Your task to perform on an android device: Open the phone app and click the voicemail tab. Image 0: 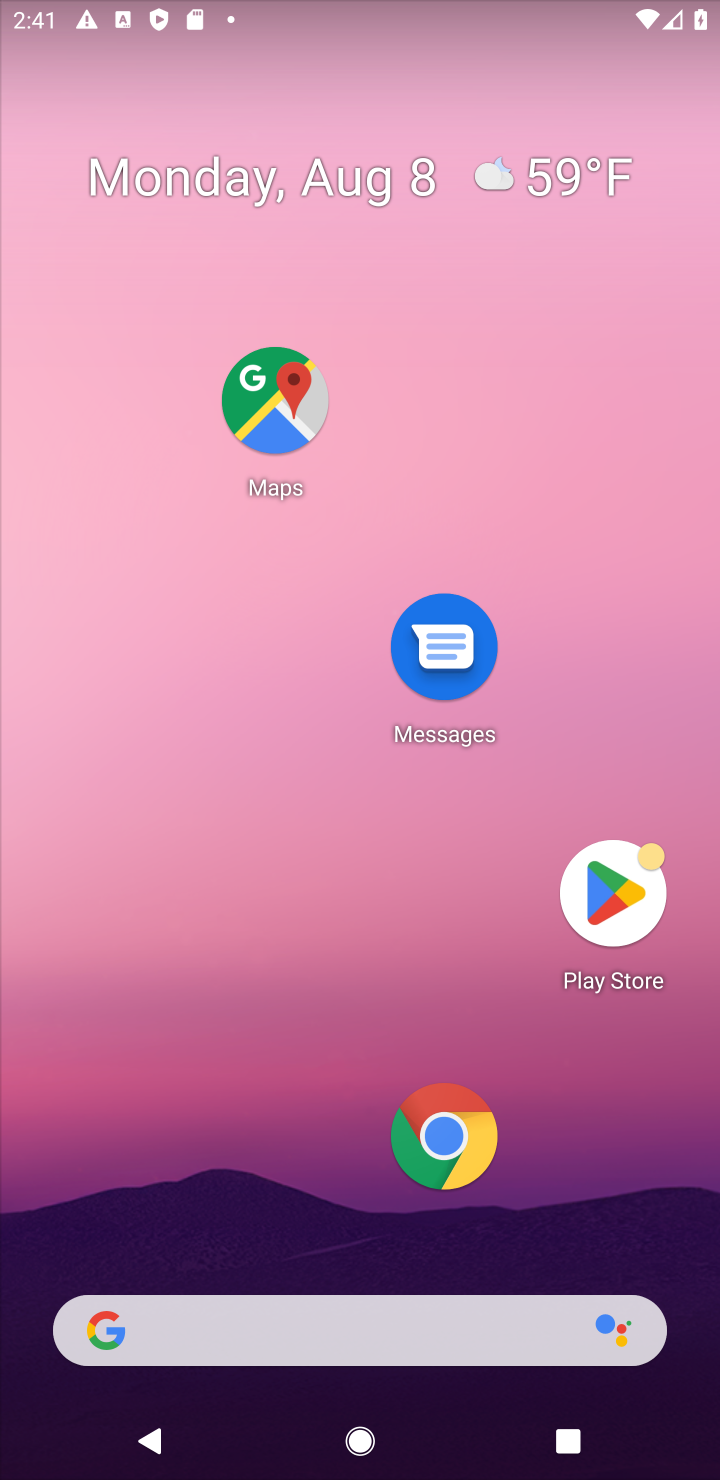
Step 0: drag from (84, 1421) to (247, 480)
Your task to perform on an android device: Open the phone app and click the voicemail tab. Image 1: 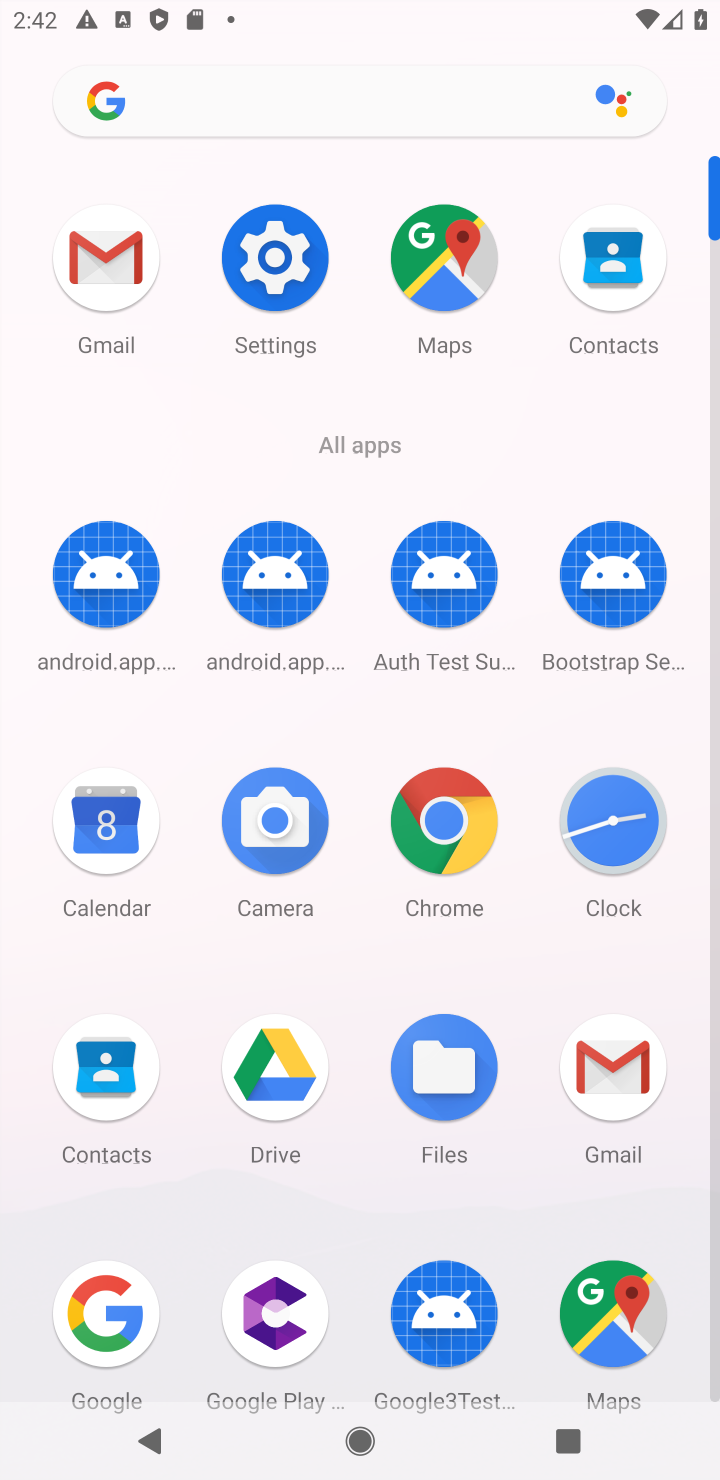
Step 1: drag from (272, 1135) to (275, 623)
Your task to perform on an android device: Open the phone app and click the voicemail tab. Image 2: 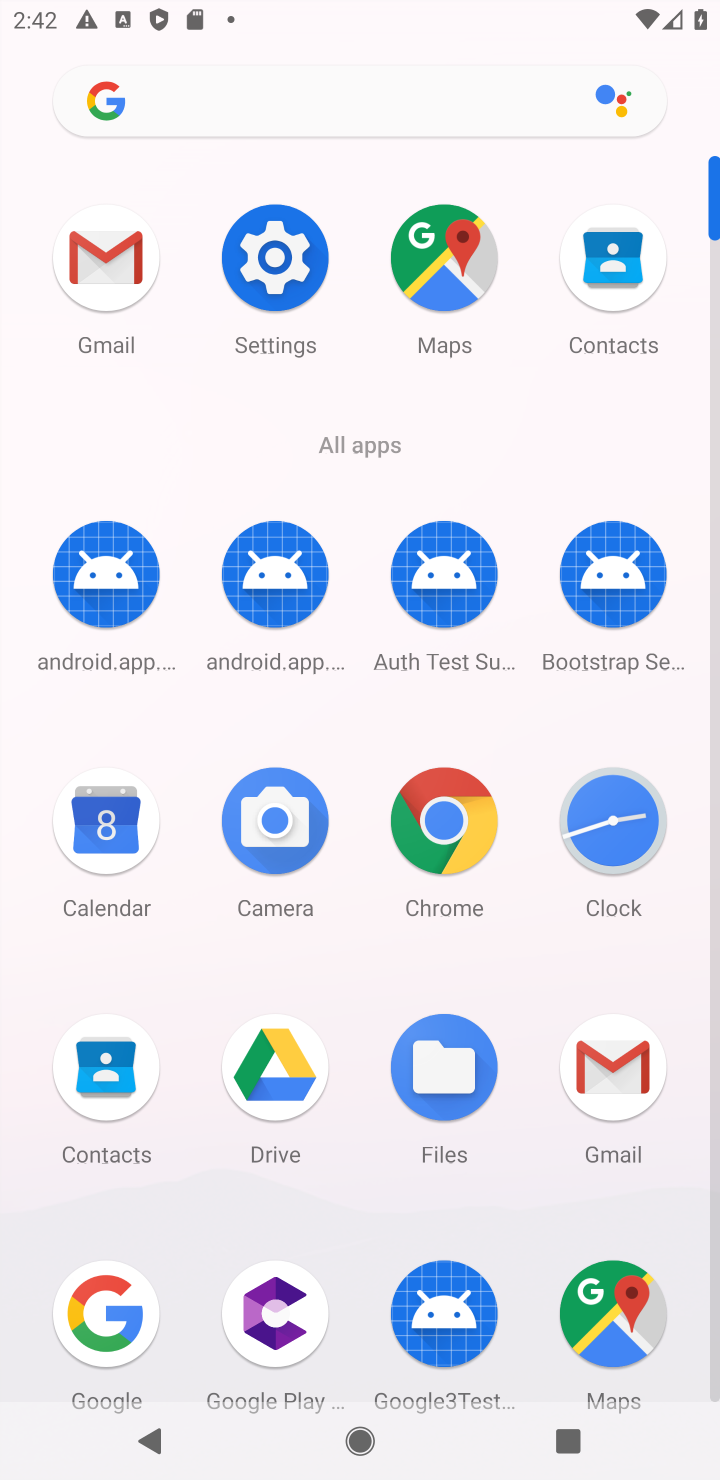
Step 2: drag from (175, 1298) to (272, 658)
Your task to perform on an android device: Open the phone app and click the voicemail tab. Image 3: 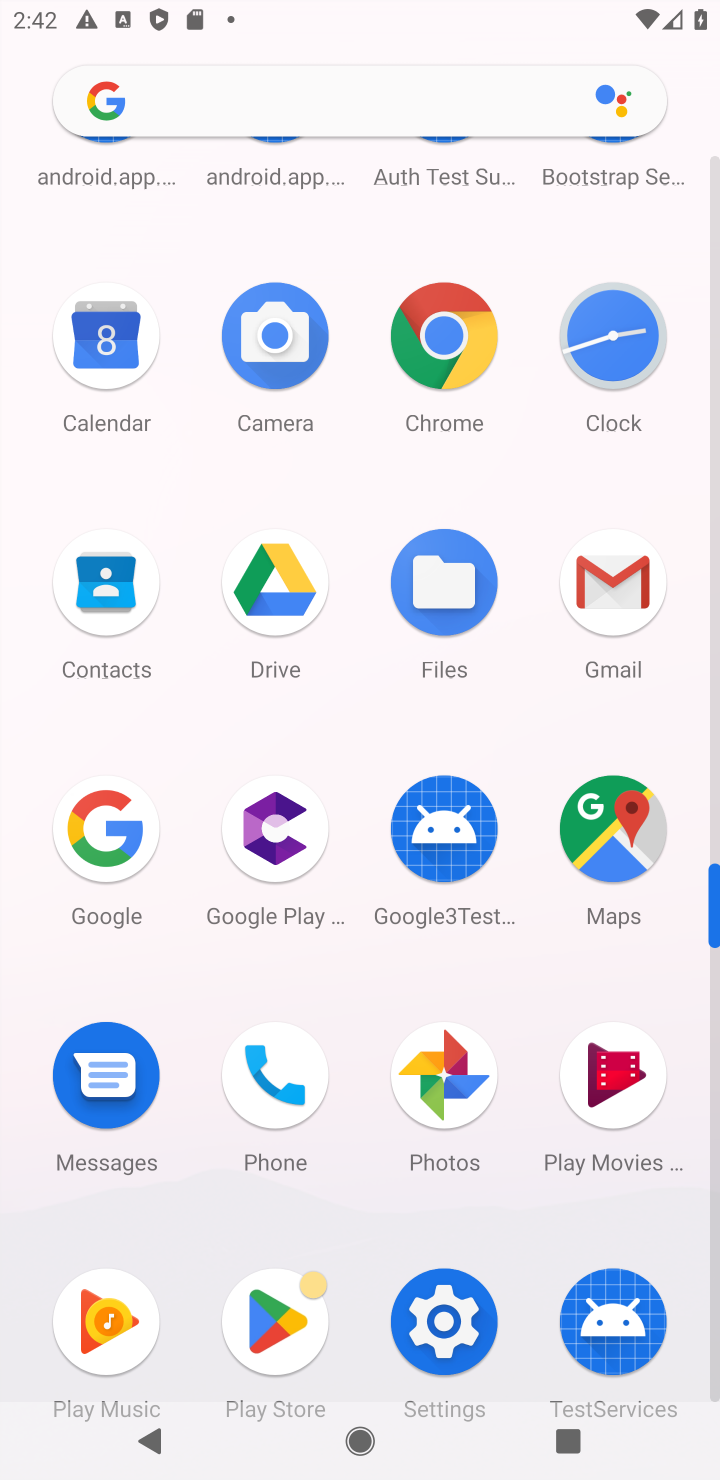
Step 3: click (282, 1087)
Your task to perform on an android device: Open the phone app and click the voicemail tab. Image 4: 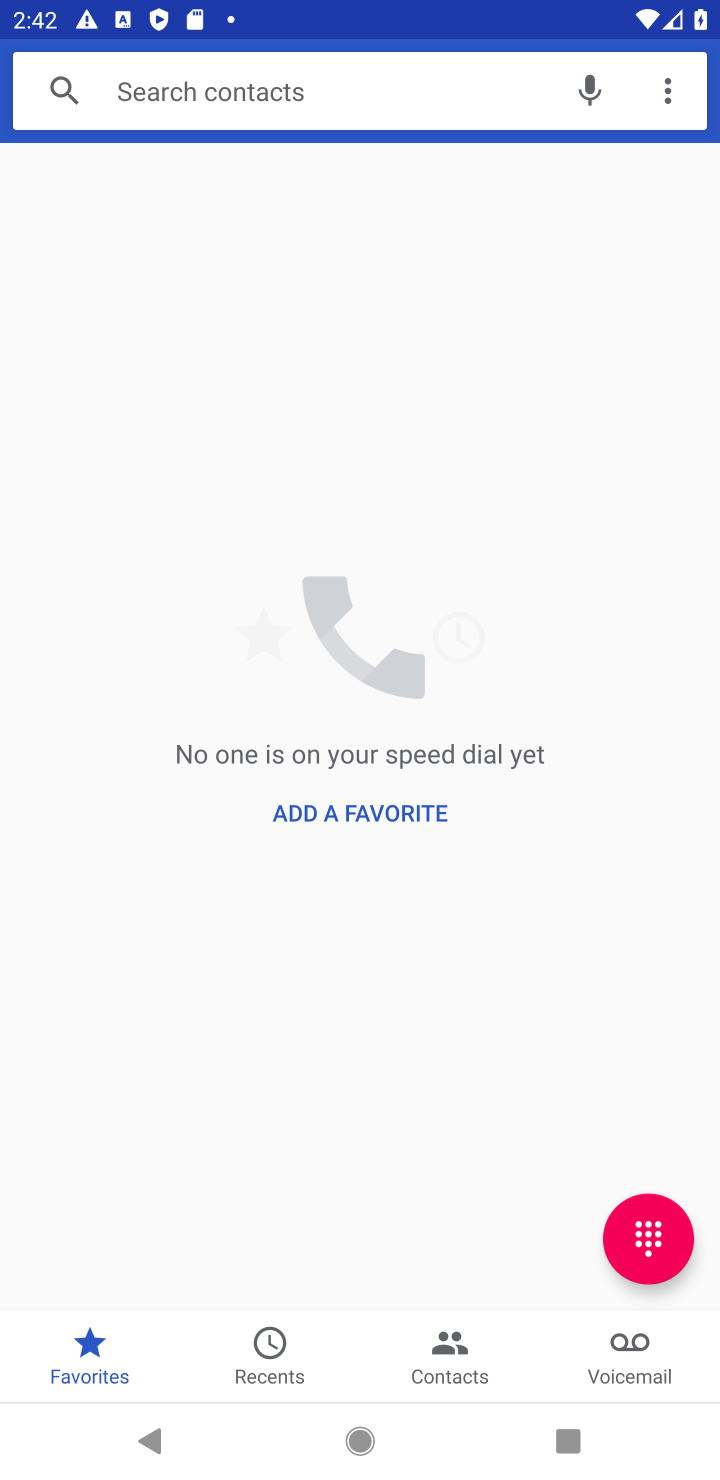
Step 4: click (603, 1345)
Your task to perform on an android device: Open the phone app and click the voicemail tab. Image 5: 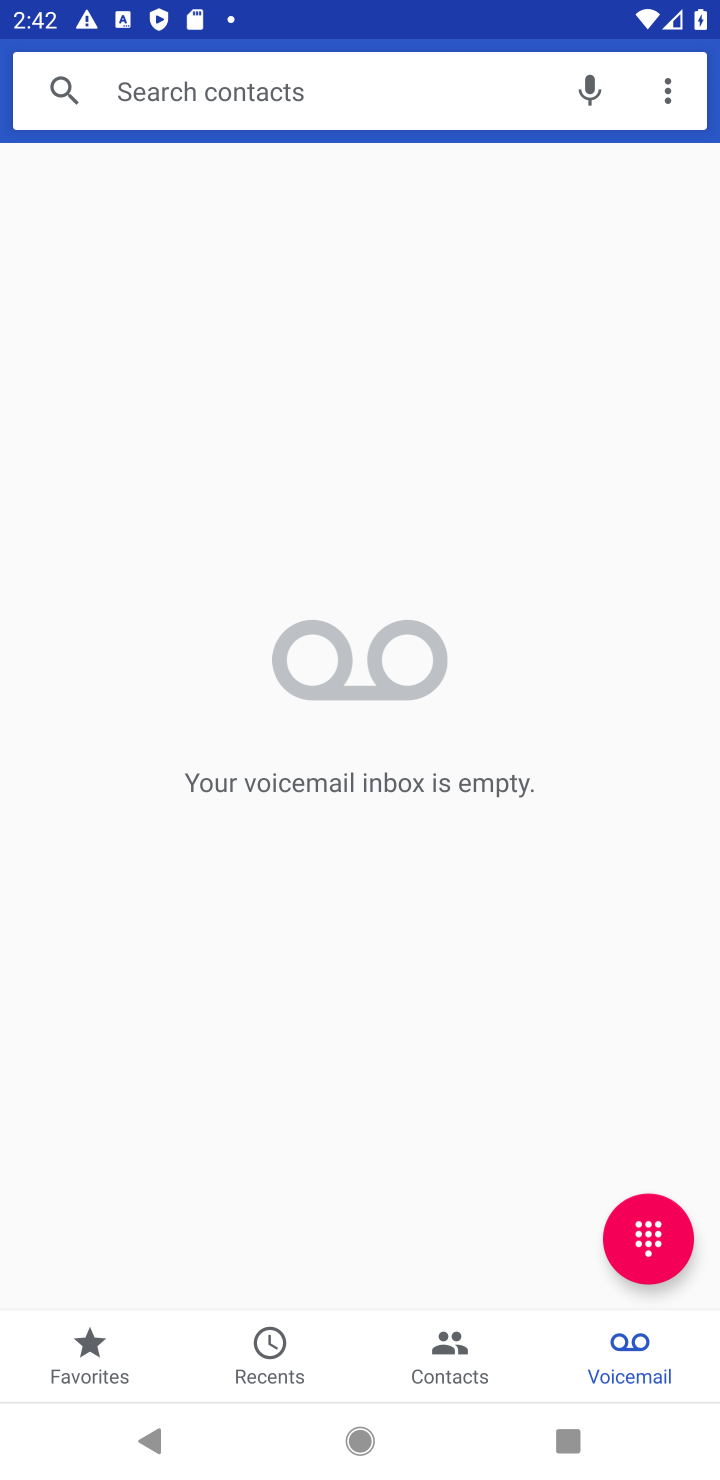
Step 5: task complete